Your task to perform on an android device: Open the Play Movies app and select the watchlist tab. Image 0: 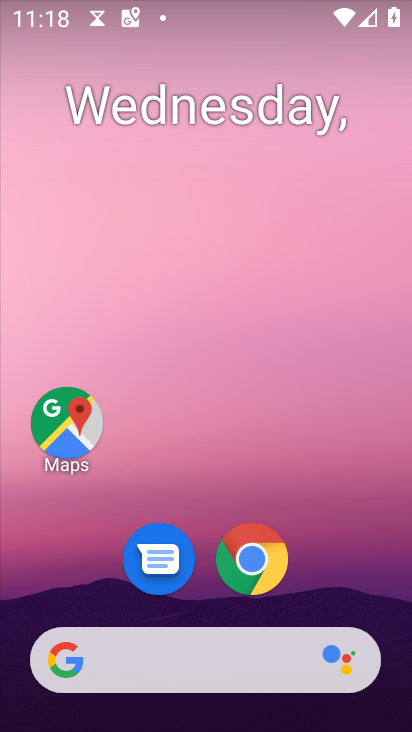
Step 0: drag from (389, 625) to (314, 217)
Your task to perform on an android device: Open the Play Movies app and select the watchlist tab. Image 1: 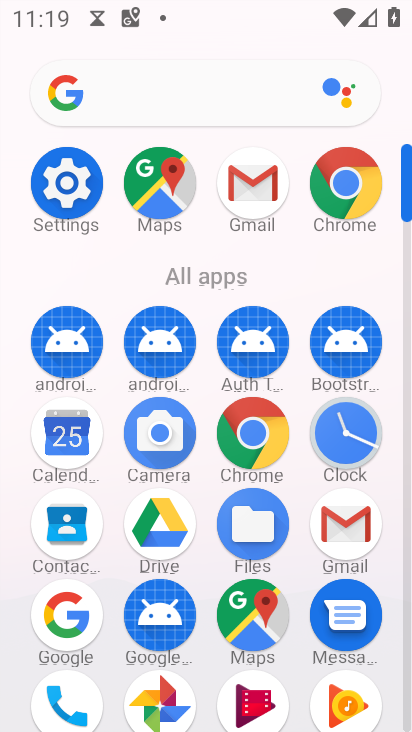
Step 1: click (263, 697)
Your task to perform on an android device: Open the Play Movies app and select the watchlist tab. Image 2: 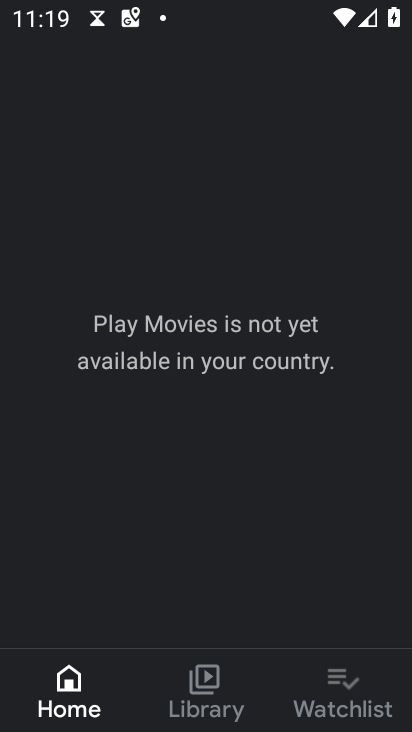
Step 2: click (328, 702)
Your task to perform on an android device: Open the Play Movies app and select the watchlist tab. Image 3: 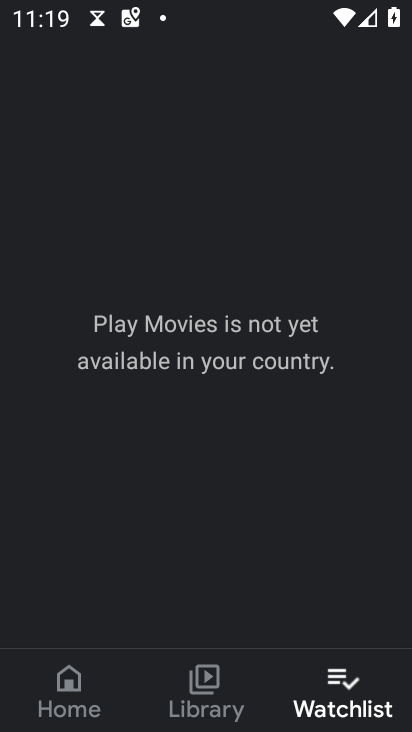
Step 3: task complete